Your task to perform on an android device: turn smart compose on in the gmail app Image 0: 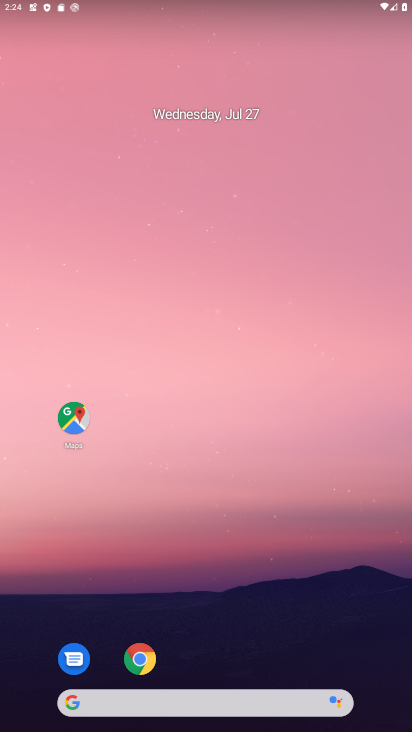
Step 0: drag from (220, 692) to (220, 231)
Your task to perform on an android device: turn smart compose on in the gmail app Image 1: 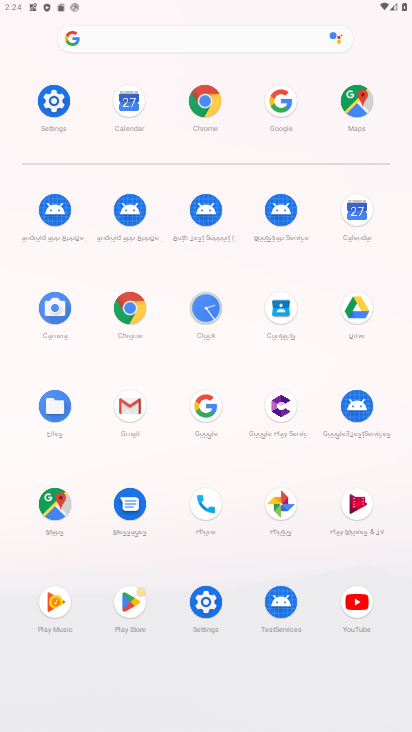
Step 1: click (133, 407)
Your task to perform on an android device: turn smart compose on in the gmail app Image 2: 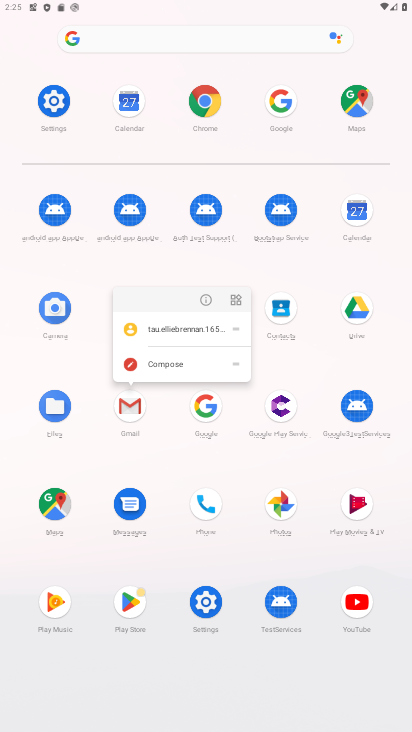
Step 2: click (133, 406)
Your task to perform on an android device: turn smart compose on in the gmail app Image 3: 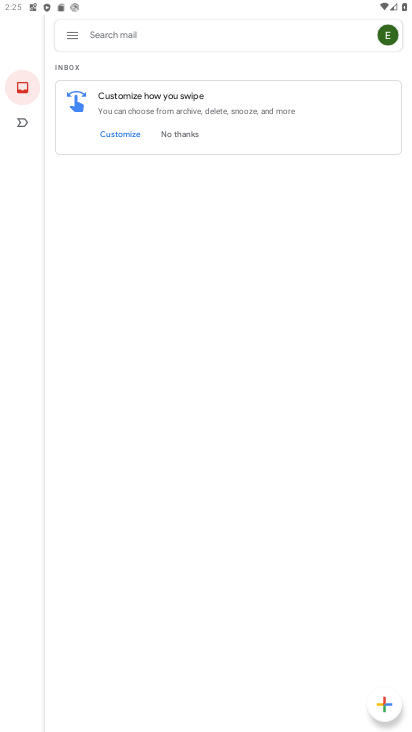
Step 3: click (72, 30)
Your task to perform on an android device: turn smart compose on in the gmail app Image 4: 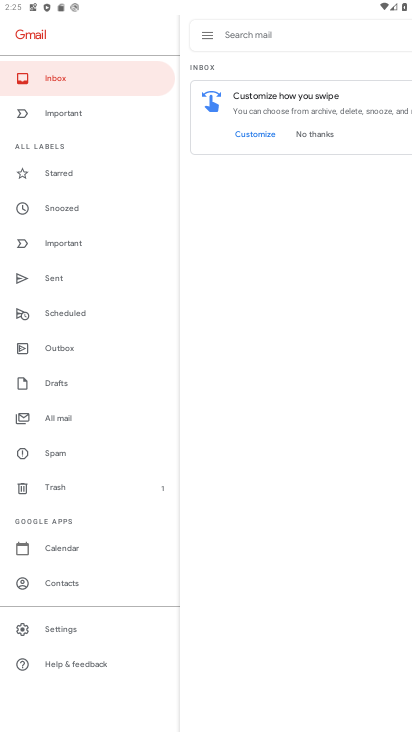
Step 4: click (63, 631)
Your task to perform on an android device: turn smart compose on in the gmail app Image 5: 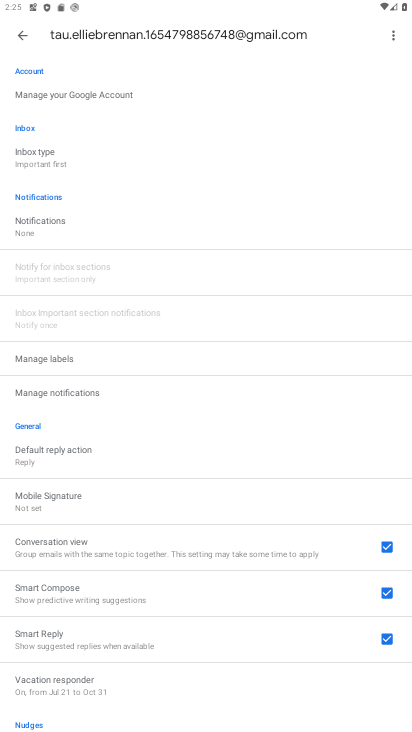
Step 5: task complete